Your task to perform on an android device: Is it going to rain tomorrow? Image 0: 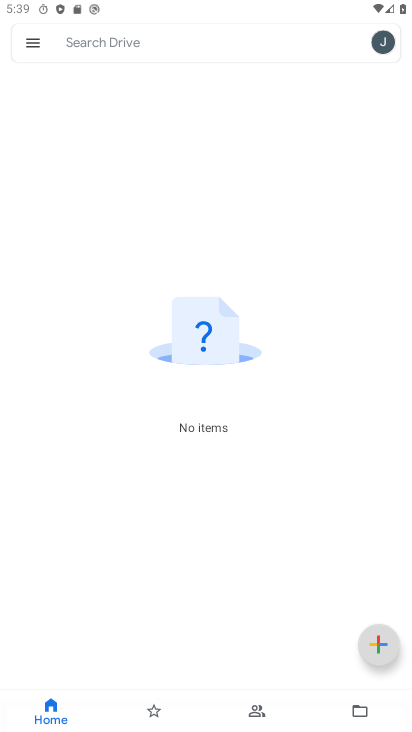
Step 0: press home button
Your task to perform on an android device: Is it going to rain tomorrow? Image 1: 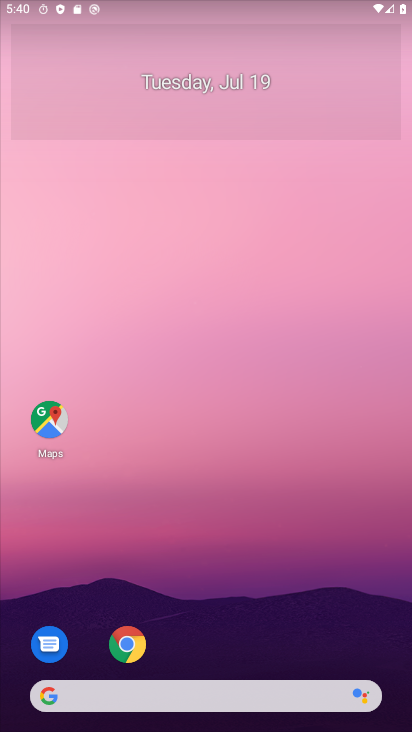
Step 1: click (160, 692)
Your task to perform on an android device: Is it going to rain tomorrow? Image 2: 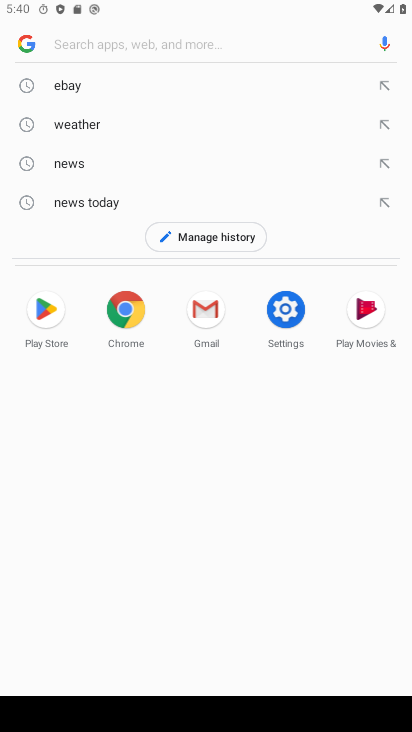
Step 2: type "Is it going to rain tomorrow?"
Your task to perform on an android device: Is it going to rain tomorrow? Image 3: 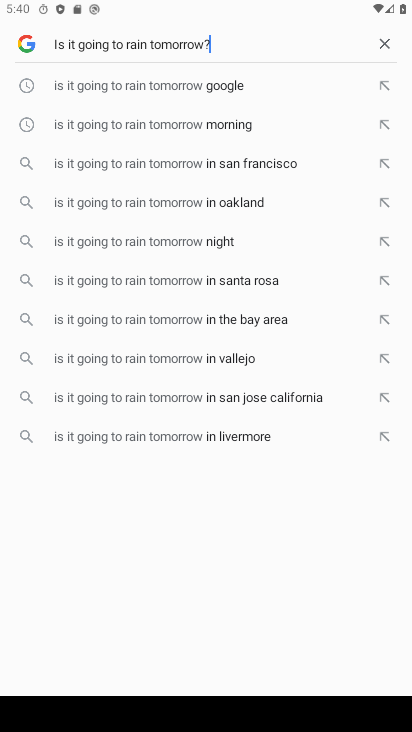
Step 3: press enter
Your task to perform on an android device: Is it going to rain tomorrow? Image 4: 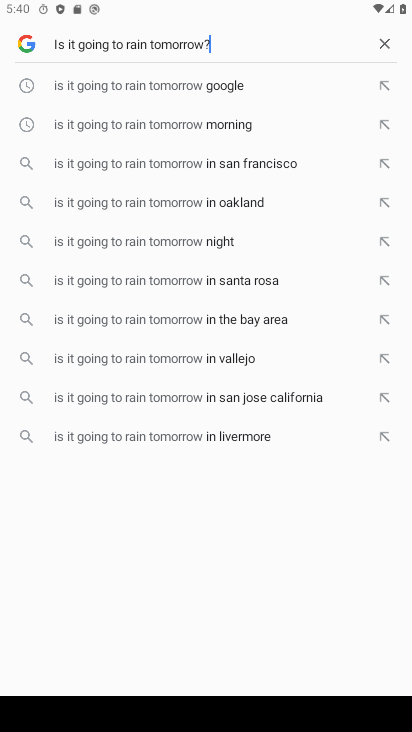
Step 4: type ""
Your task to perform on an android device: Is it going to rain tomorrow? Image 5: 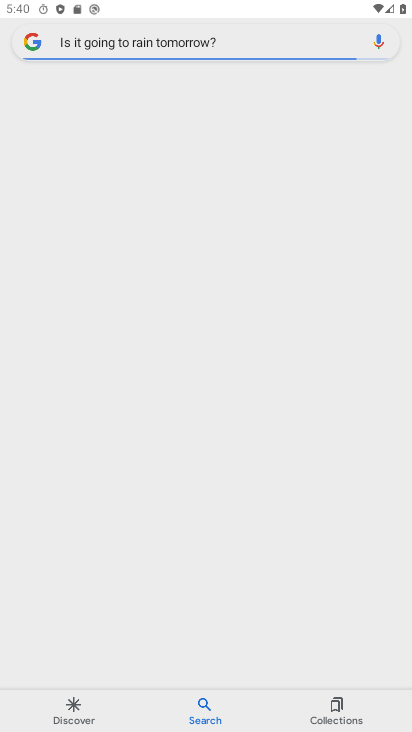
Step 5: press enter
Your task to perform on an android device: Is it going to rain tomorrow? Image 6: 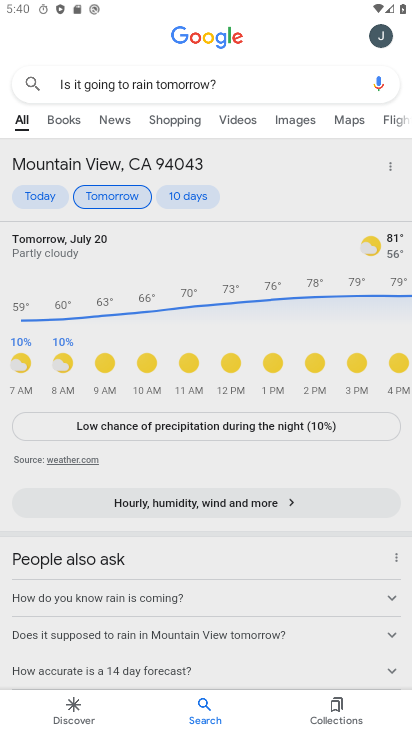
Step 6: task complete